Your task to perform on an android device: manage bookmarks in the chrome app Image 0: 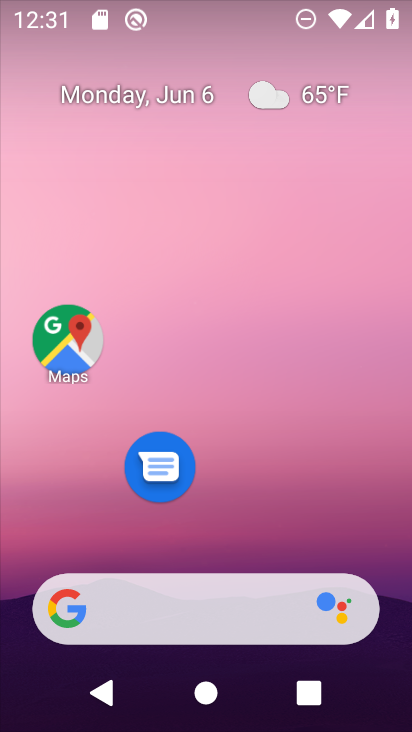
Step 0: drag from (325, 371) to (323, 81)
Your task to perform on an android device: manage bookmarks in the chrome app Image 1: 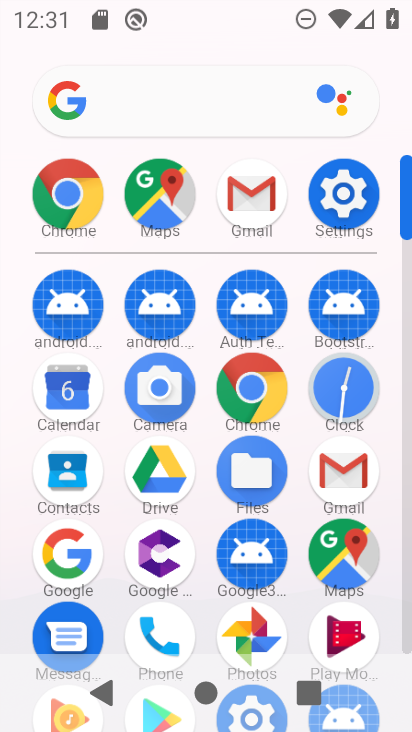
Step 1: click (73, 180)
Your task to perform on an android device: manage bookmarks in the chrome app Image 2: 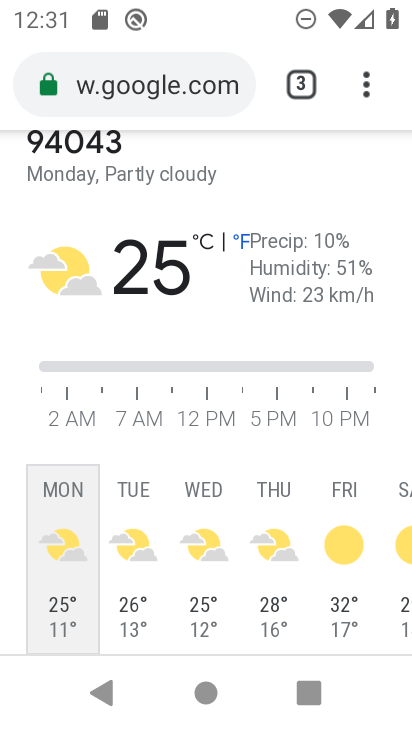
Step 2: drag from (372, 64) to (155, 345)
Your task to perform on an android device: manage bookmarks in the chrome app Image 3: 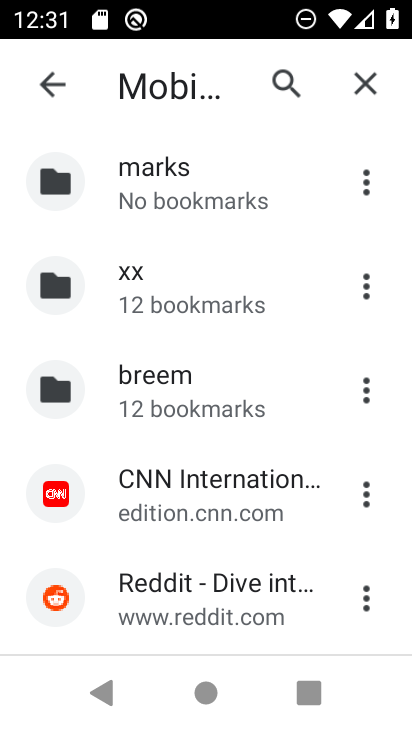
Step 3: click (162, 329)
Your task to perform on an android device: manage bookmarks in the chrome app Image 4: 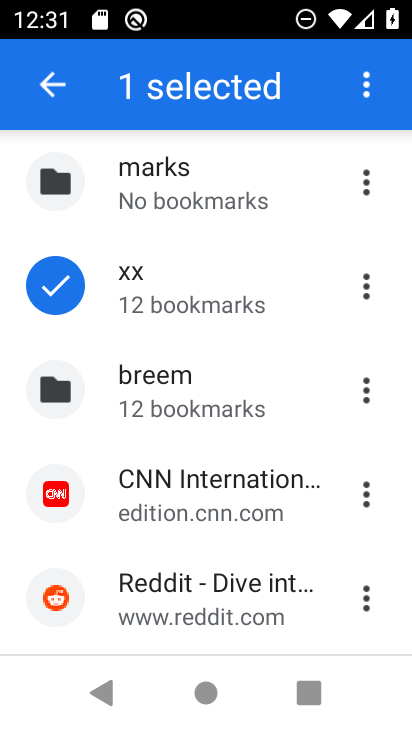
Step 4: click (376, 77)
Your task to perform on an android device: manage bookmarks in the chrome app Image 5: 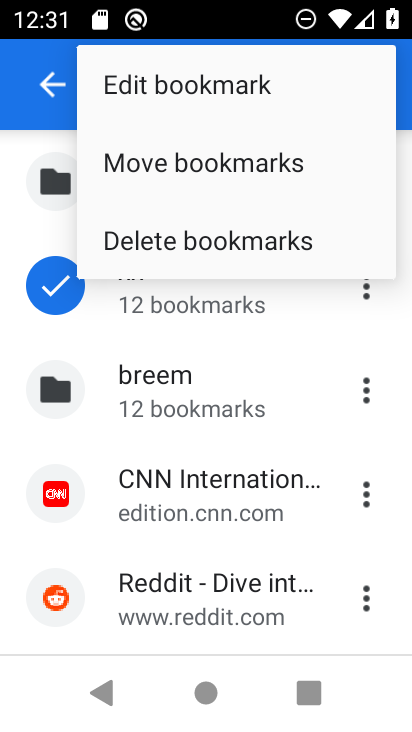
Step 5: click (201, 241)
Your task to perform on an android device: manage bookmarks in the chrome app Image 6: 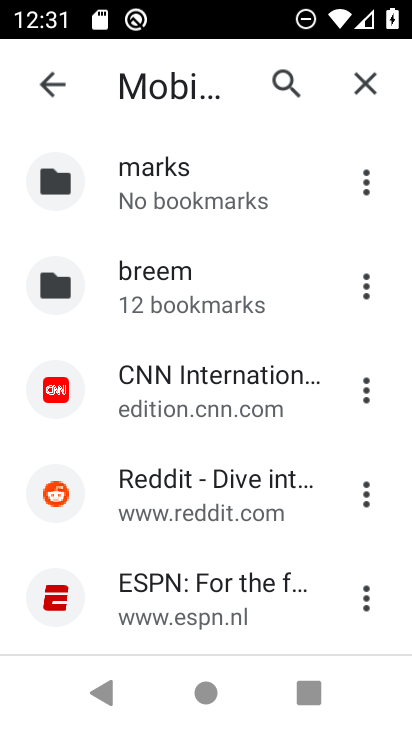
Step 6: task complete